Your task to perform on an android device: Open wifi settings Image 0: 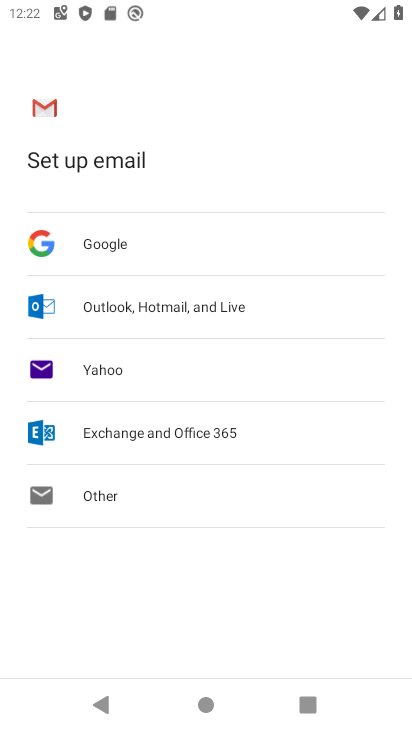
Step 0: press back button
Your task to perform on an android device: Open wifi settings Image 1: 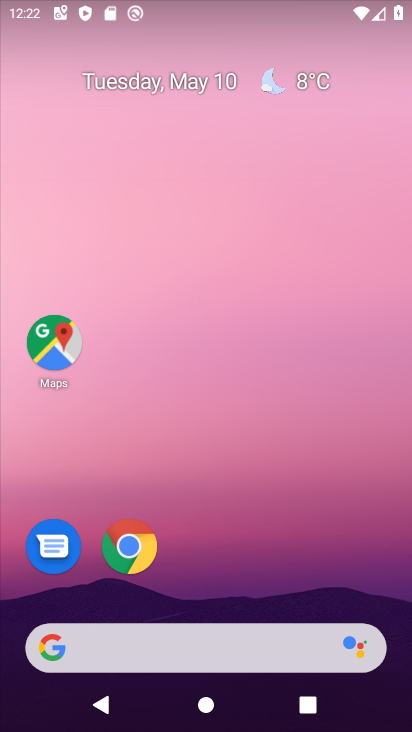
Step 1: drag from (246, 539) to (65, 3)
Your task to perform on an android device: Open wifi settings Image 2: 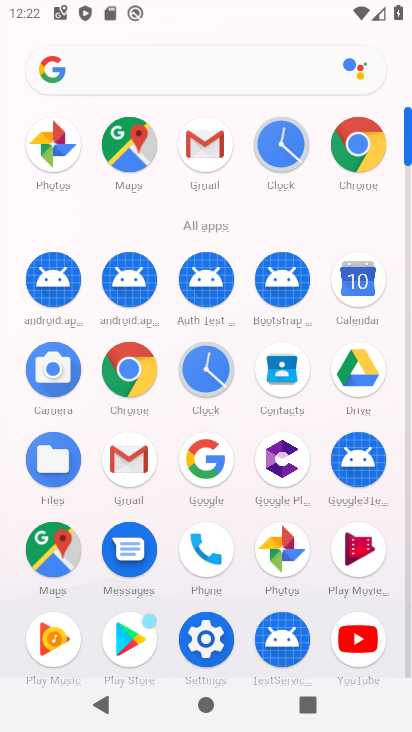
Step 2: click (211, 637)
Your task to perform on an android device: Open wifi settings Image 3: 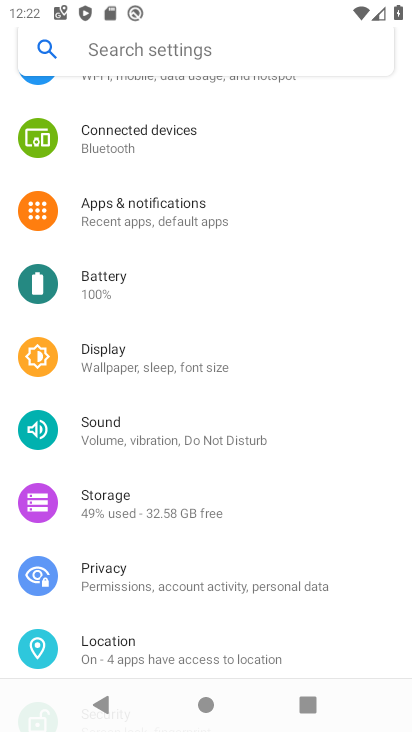
Step 3: drag from (131, 154) to (205, 610)
Your task to perform on an android device: Open wifi settings Image 4: 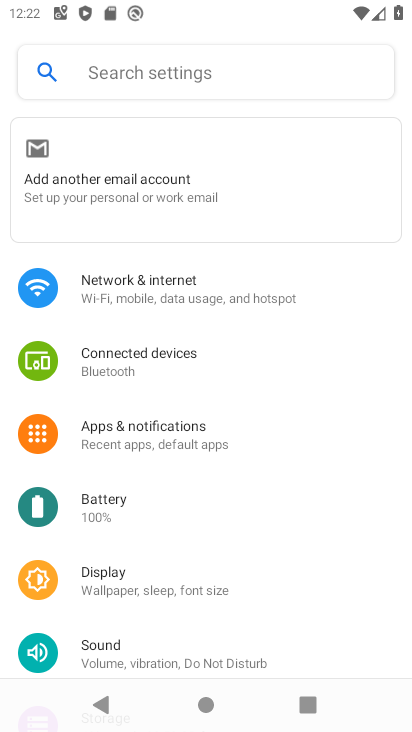
Step 4: click (155, 296)
Your task to perform on an android device: Open wifi settings Image 5: 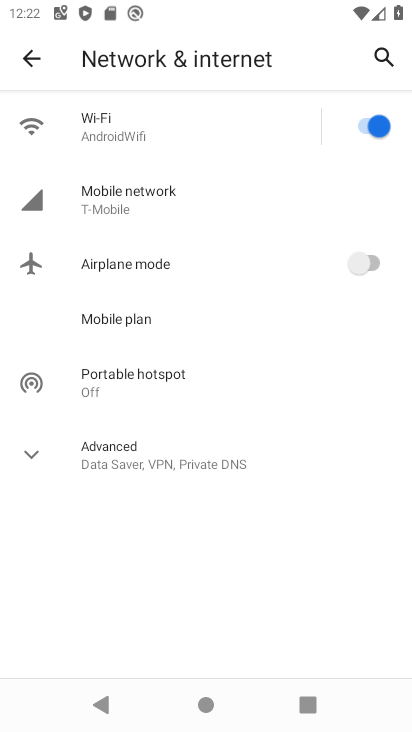
Step 5: task complete